Your task to perform on an android device: allow notifications from all sites in the chrome app Image 0: 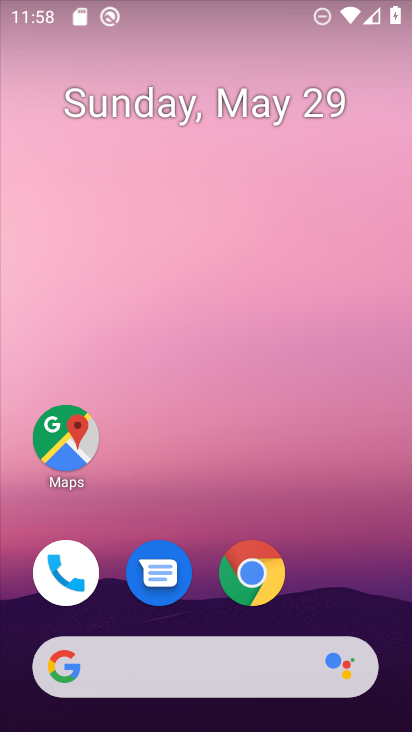
Step 0: click (252, 563)
Your task to perform on an android device: allow notifications from all sites in the chrome app Image 1: 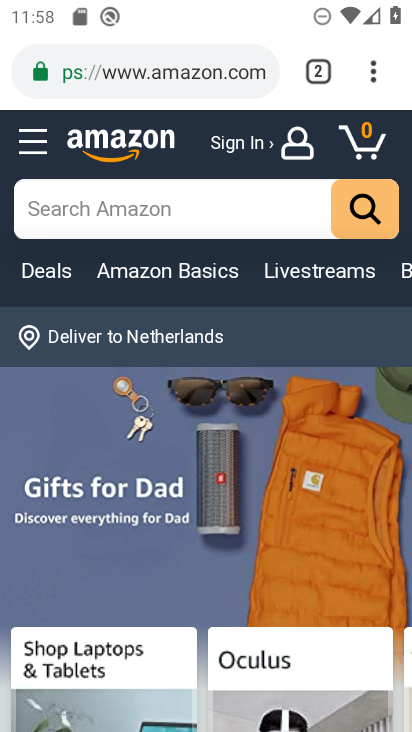
Step 1: drag from (374, 74) to (170, 564)
Your task to perform on an android device: allow notifications from all sites in the chrome app Image 2: 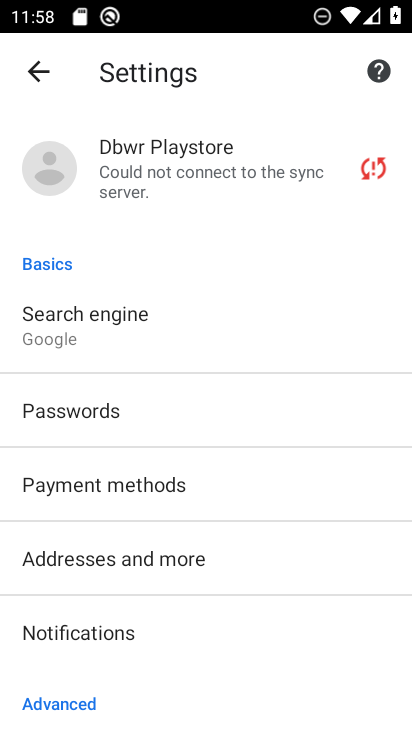
Step 2: drag from (272, 665) to (271, 324)
Your task to perform on an android device: allow notifications from all sites in the chrome app Image 3: 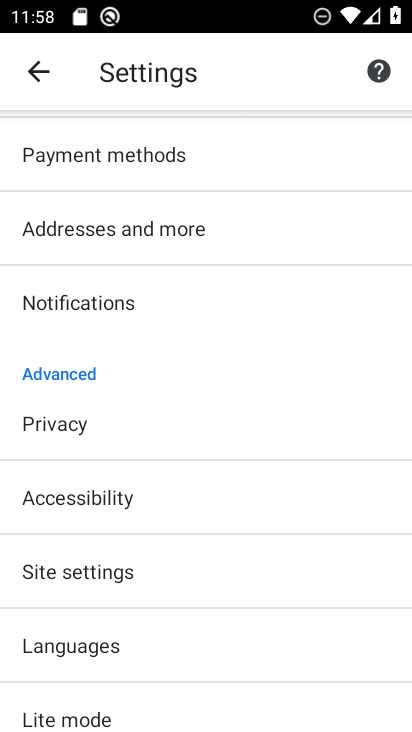
Step 3: click (85, 578)
Your task to perform on an android device: allow notifications from all sites in the chrome app Image 4: 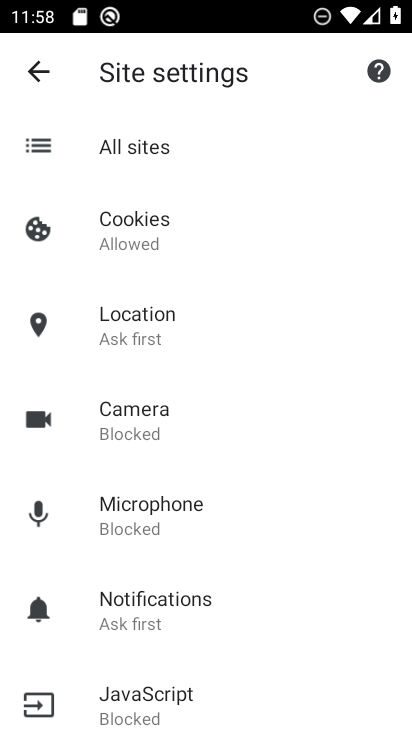
Step 4: drag from (296, 677) to (281, 116)
Your task to perform on an android device: allow notifications from all sites in the chrome app Image 5: 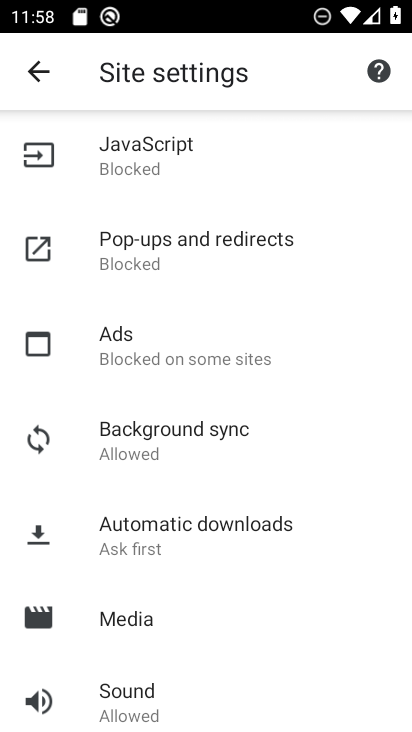
Step 5: drag from (266, 655) to (242, 596)
Your task to perform on an android device: allow notifications from all sites in the chrome app Image 6: 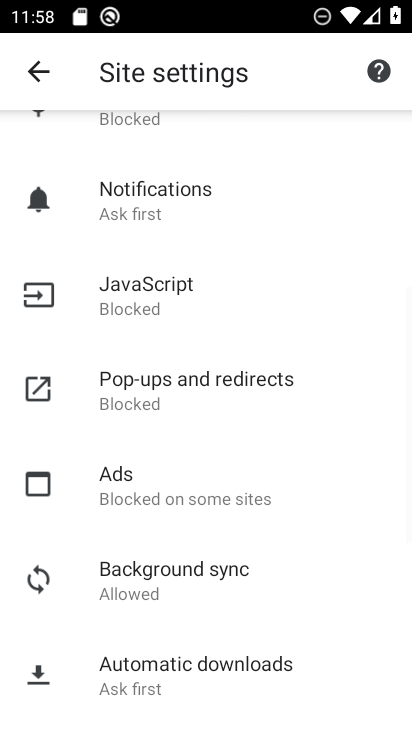
Step 6: click (140, 198)
Your task to perform on an android device: allow notifications from all sites in the chrome app Image 7: 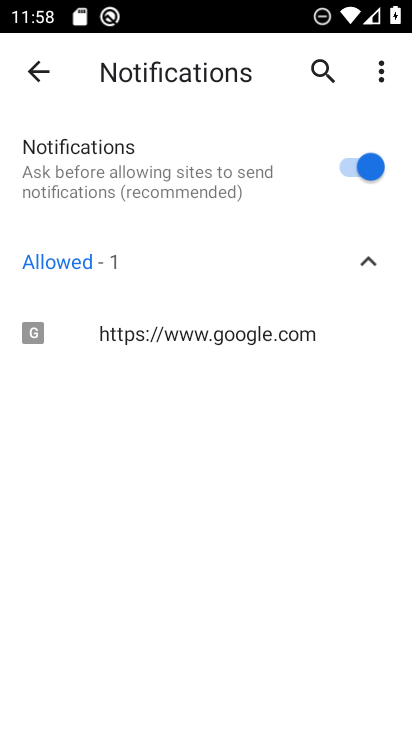
Step 7: task complete